Your task to perform on an android device: turn off location history Image 0: 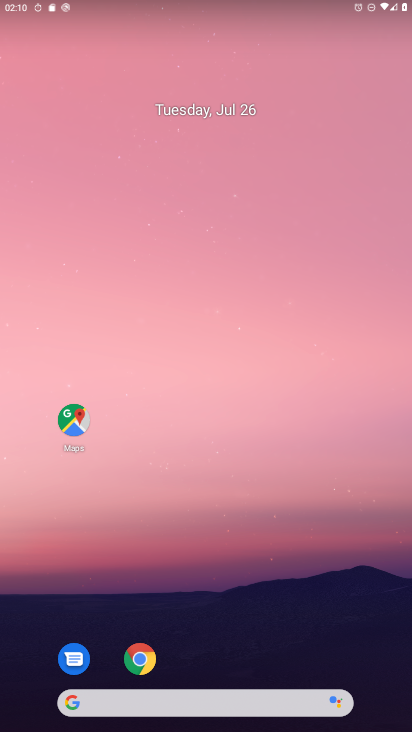
Step 0: drag from (340, 641) to (322, 234)
Your task to perform on an android device: turn off location history Image 1: 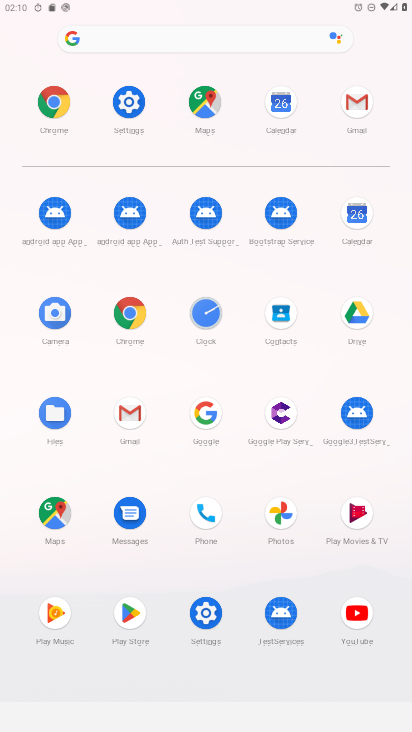
Step 1: click (61, 527)
Your task to perform on an android device: turn off location history Image 2: 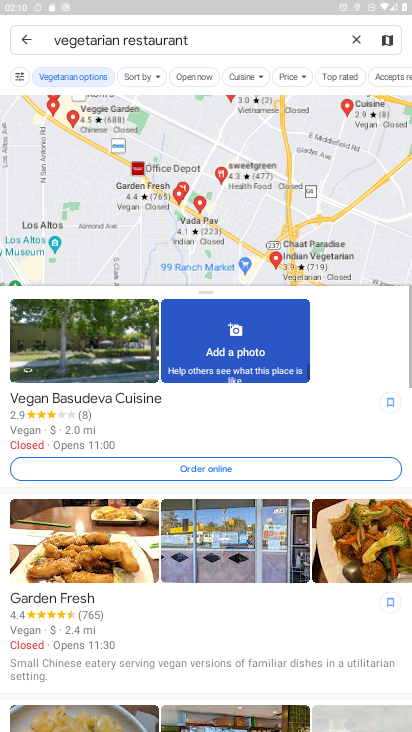
Step 2: click (29, 35)
Your task to perform on an android device: turn off location history Image 3: 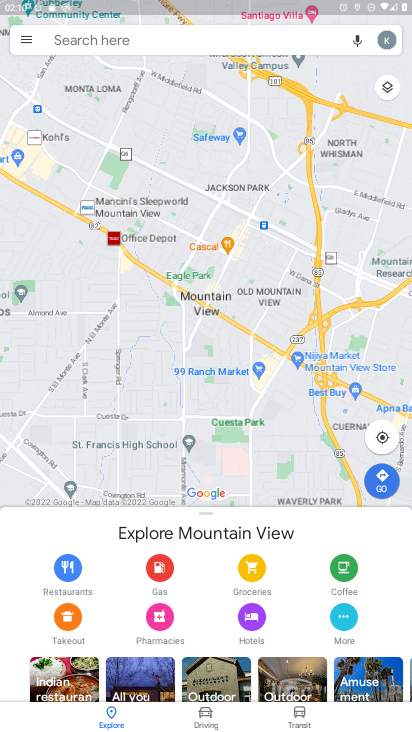
Step 3: click (29, 35)
Your task to perform on an android device: turn off location history Image 4: 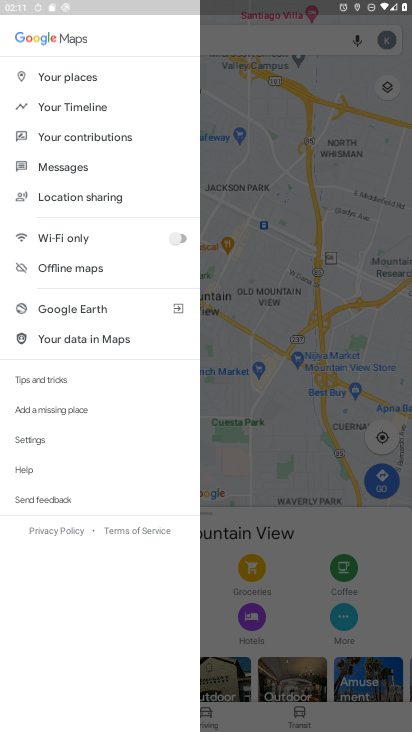
Step 4: click (39, 434)
Your task to perform on an android device: turn off location history Image 5: 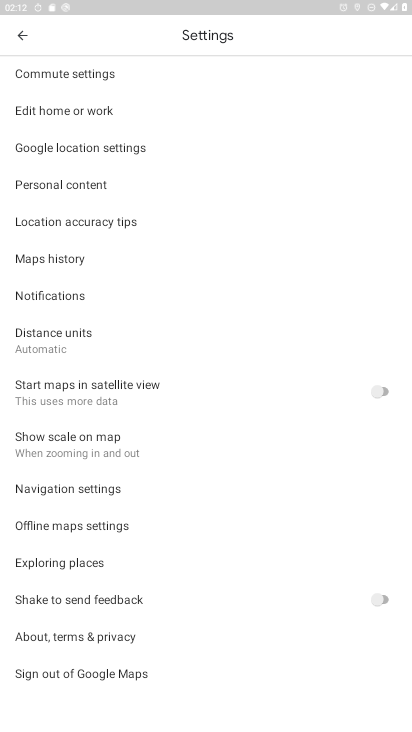
Step 5: click (21, 28)
Your task to perform on an android device: turn off location history Image 6: 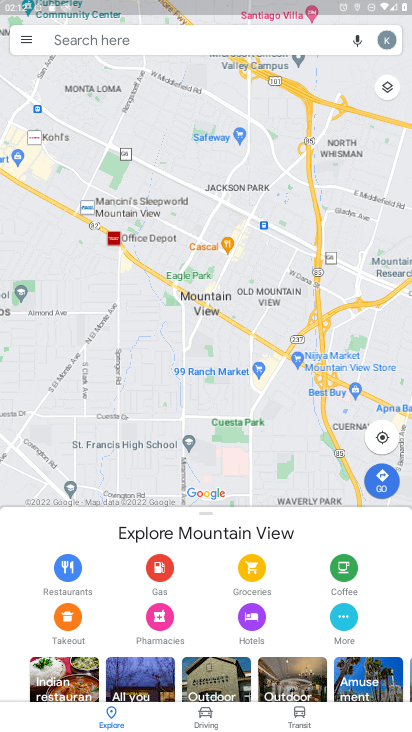
Step 6: click (21, 28)
Your task to perform on an android device: turn off location history Image 7: 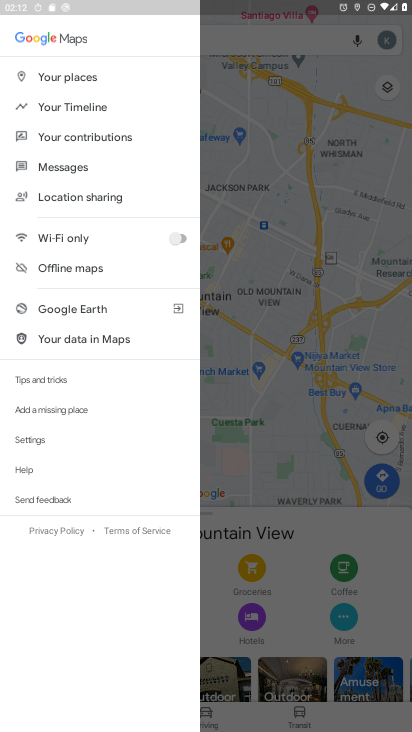
Step 7: click (74, 114)
Your task to perform on an android device: turn off location history Image 8: 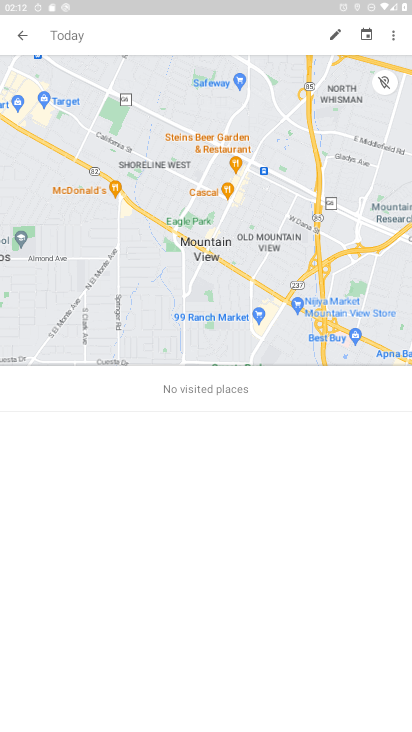
Step 8: click (404, 32)
Your task to perform on an android device: turn off location history Image 9: 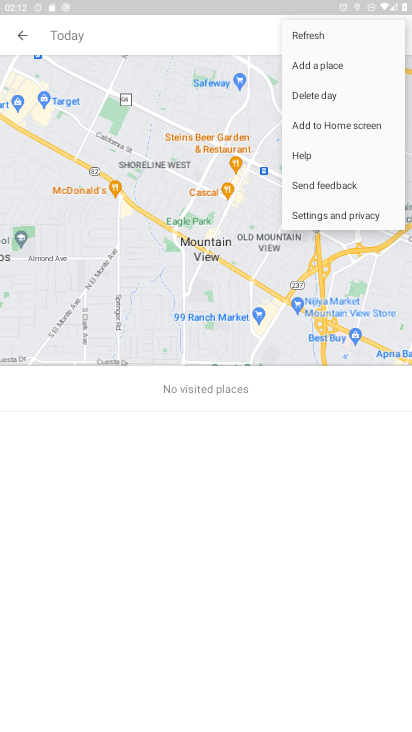
Step 9: click (316, 219)
Your task to perform on an android device: turn off location history Image 10: 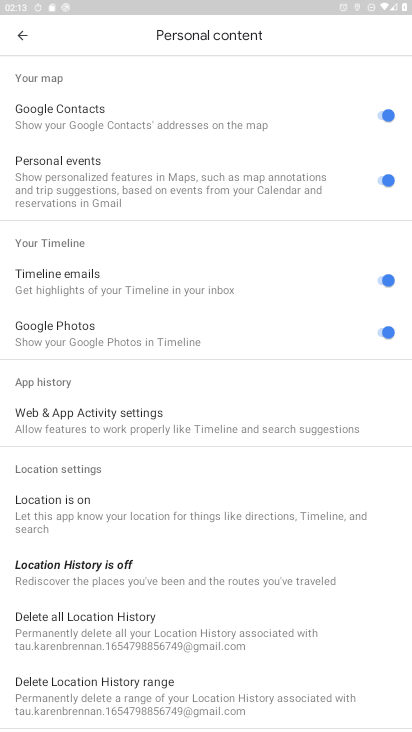
Step 10: click (107, 580)
Your task to perform on an android device: turn off location history Image 11: 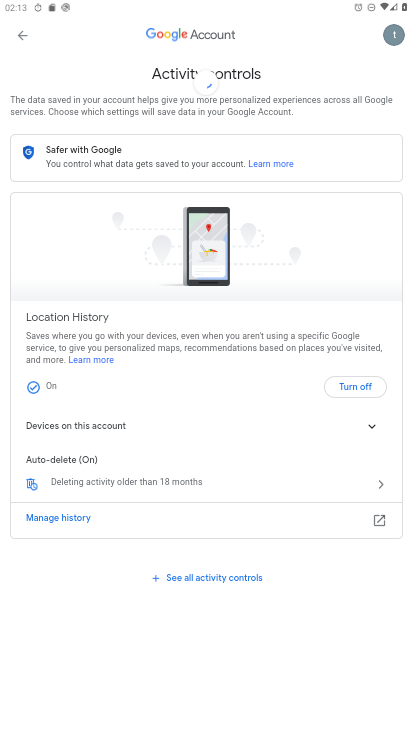
Step 11: click (350, 388)
Your task to perform on an android device: turn off location history Image 12: 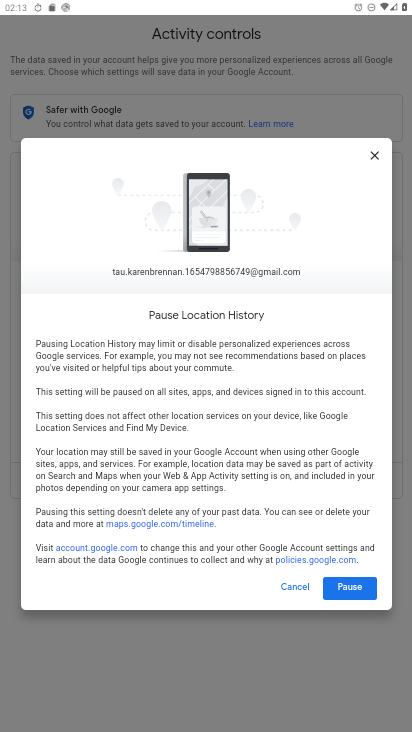
Step 12: click (355, 591)
Your task to perform on an android device: turn off location history Image 13: 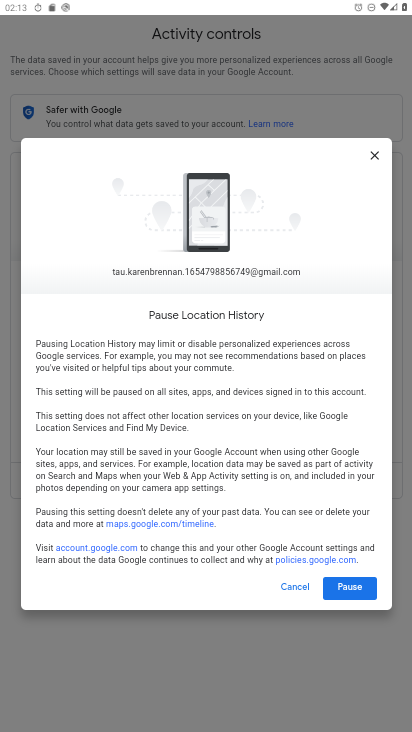
Step 13: click (355, 591)
Your task to perform on an android device: turn off location history Image 14: 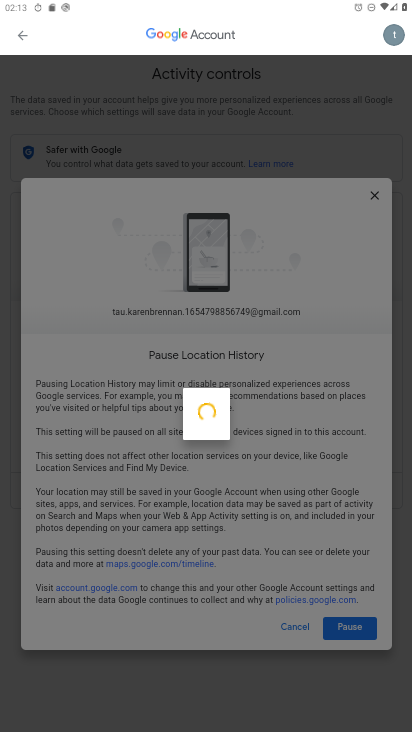
Step 14: click (346, 587)
Your task to perform on an android device: turn off location history Image 15: 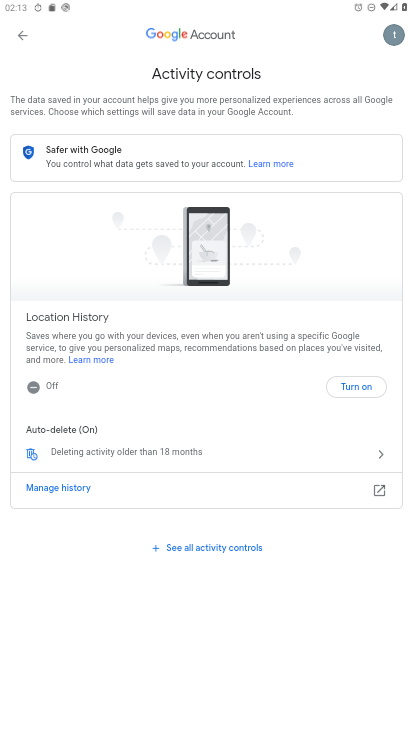
Step 15: task complete